Your task to perform on an android device: allow notifications from all sites in the chrome app Image 0: 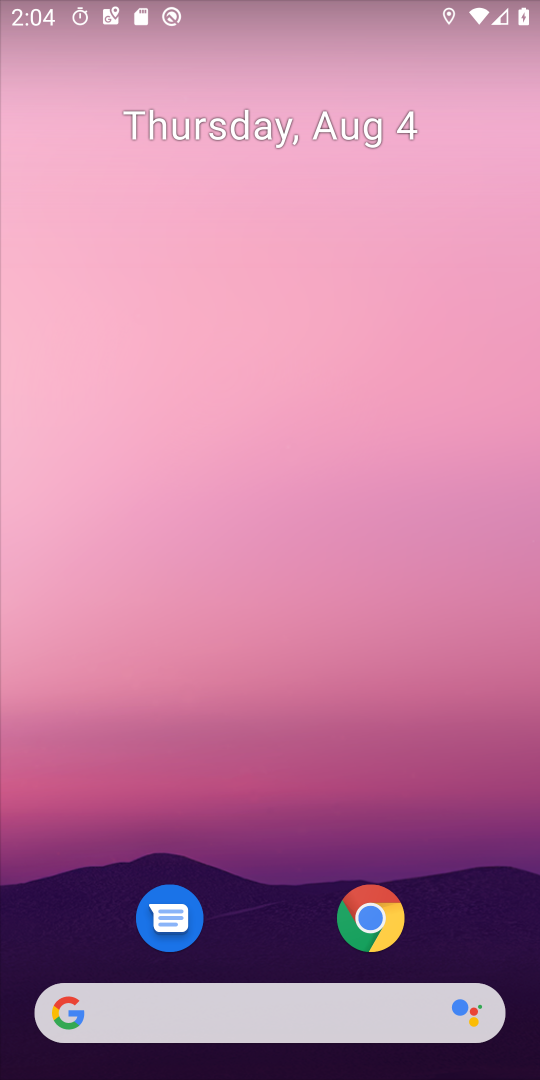
Step 0: click (339, 900)
Your task to perform on an android device: allow notifications from all sites in the chrome app Image 1: 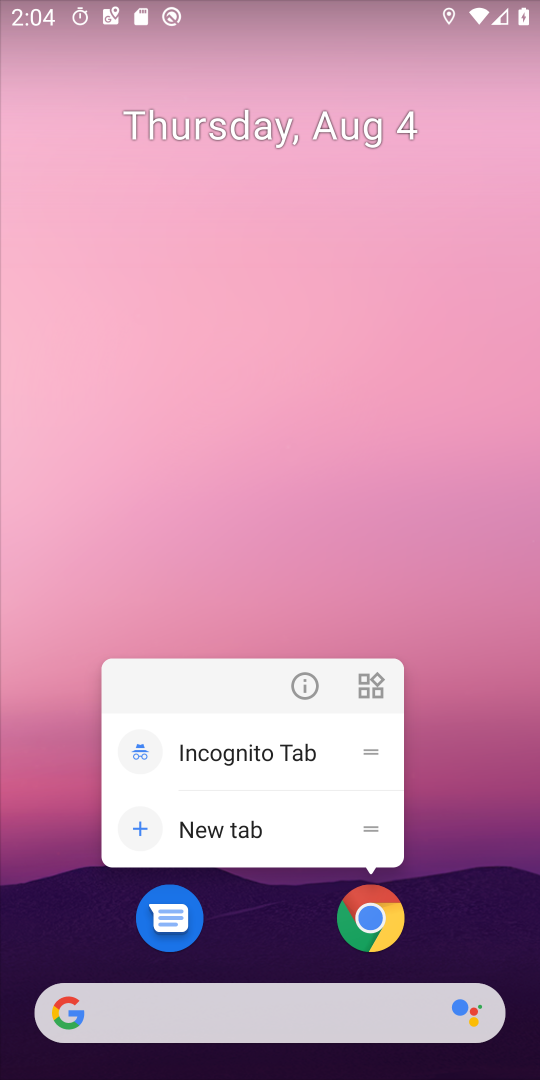
Step 1: click (344, 901)
Your task to perform on an android device: allow notifications from all sites in the chrome app Image 2: 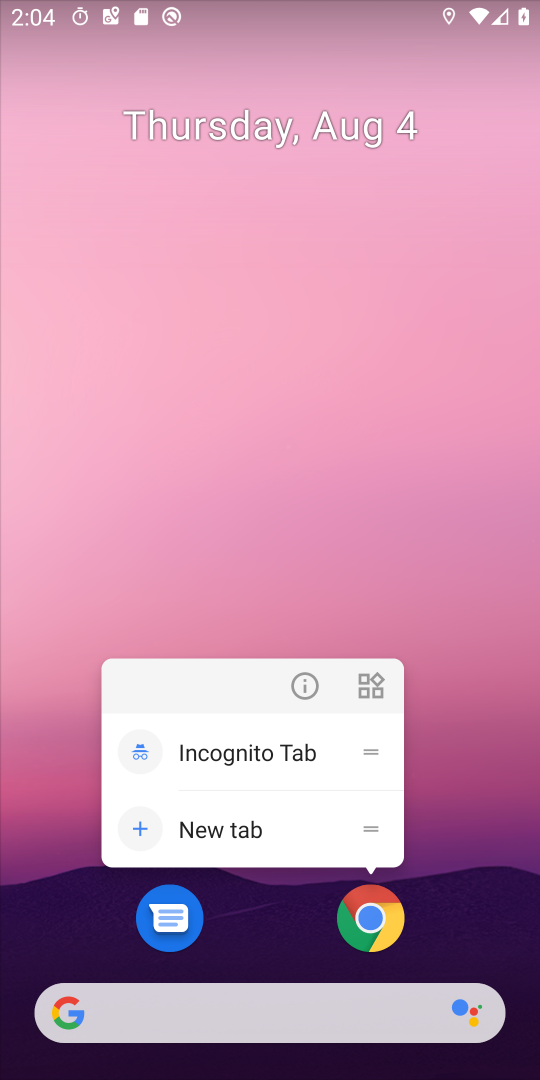
Step 2: click (378, 930)
Your task to perform on an android device: allow notifications from all sites in the chrome app Image 3: 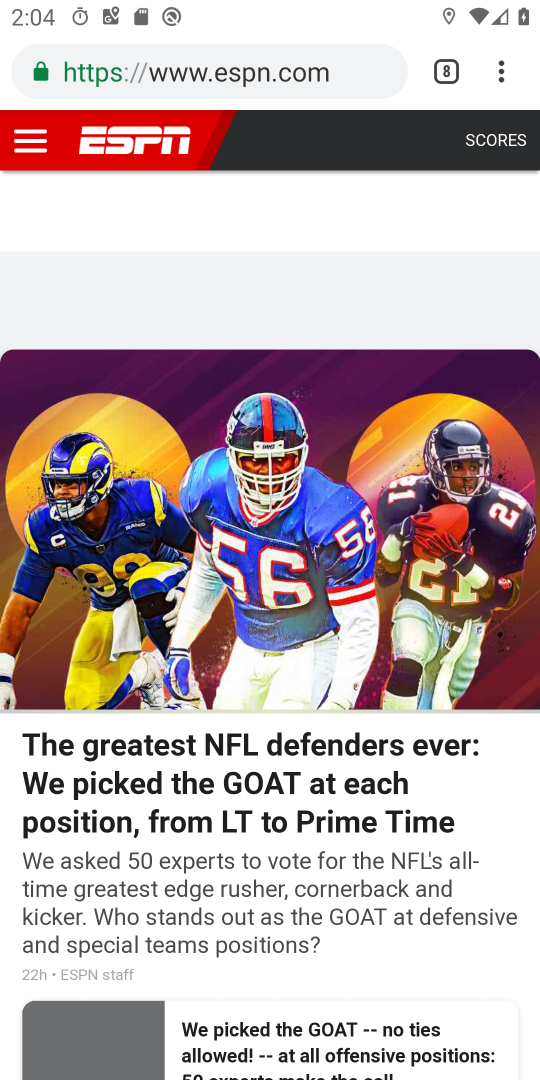
Step 3: click (498, 78)
Your task to perform on an android device: allow notifications from all sites in the chrome app Image 4: 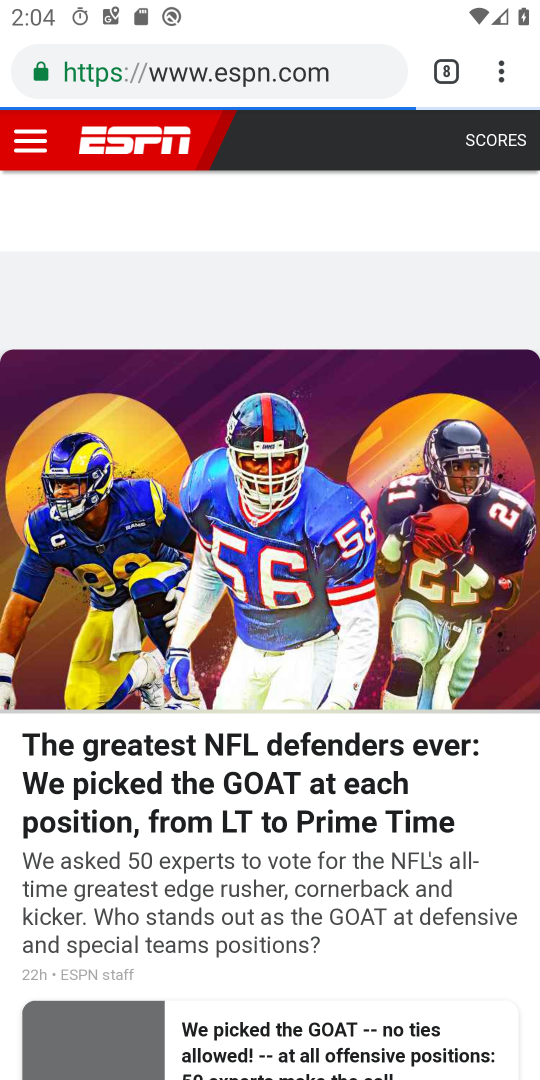
Step 4: drag from (498, 78) to (287, 842)
Your task to perform on an android device: allow notifications from all sites in the chrome app Image 5: 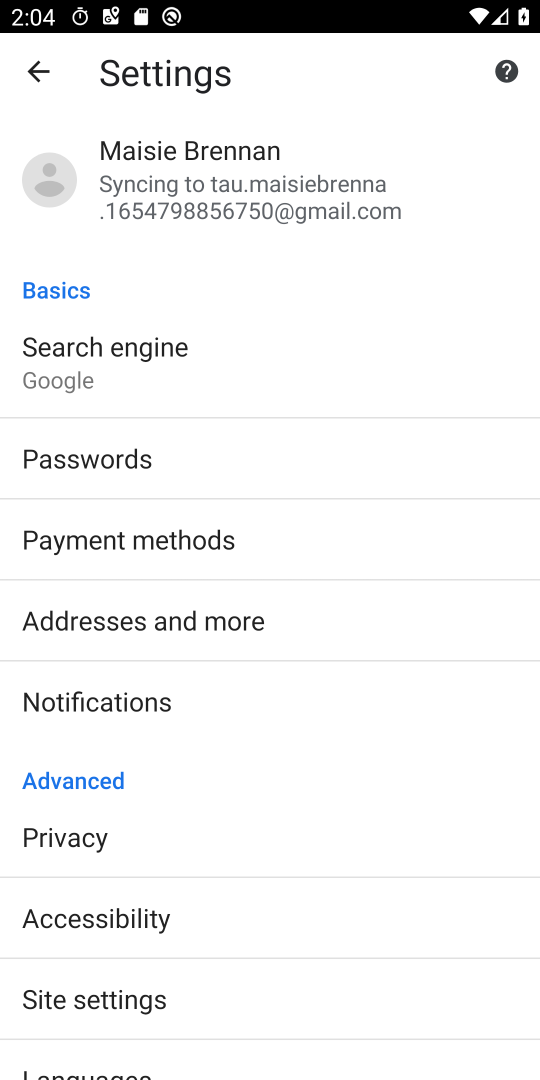
Step 5: click (174, 978)
Your task to perform on an android device: allow notifications from all sites in the chrome app Image 6: 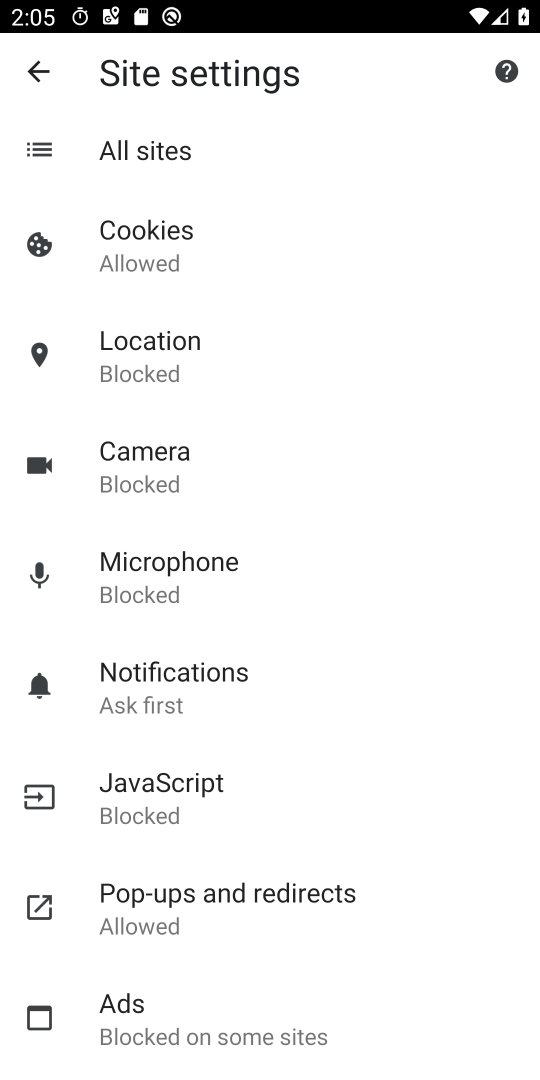
Step 6: click (171, 161)
Your task to perform on an android device: allow notifications from all sites in the chrome app Image 7: 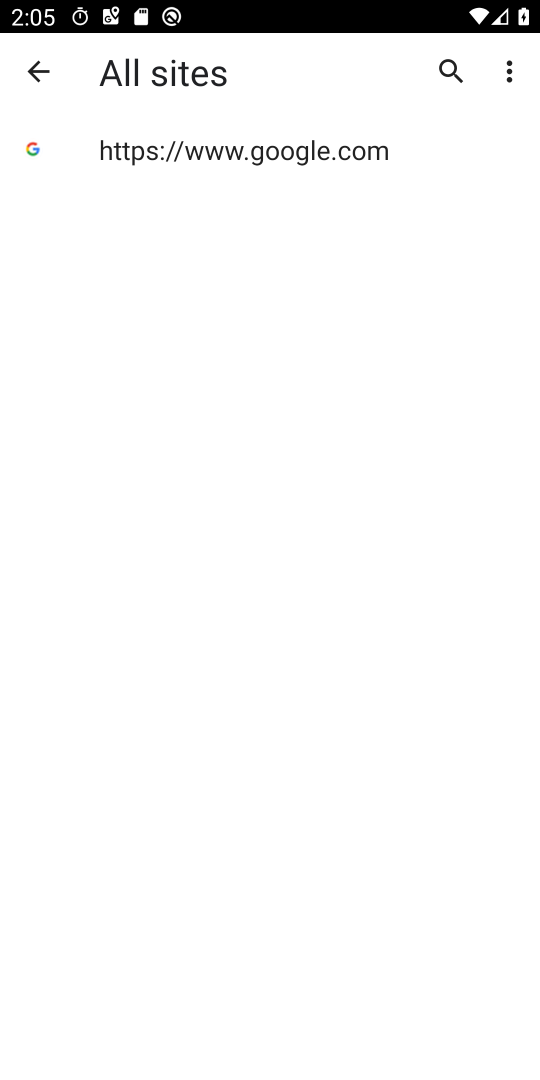
Step 7: click (269, 159)
Your task to perform on an android device: allow notifications from all sites in the chrome app Image 8: 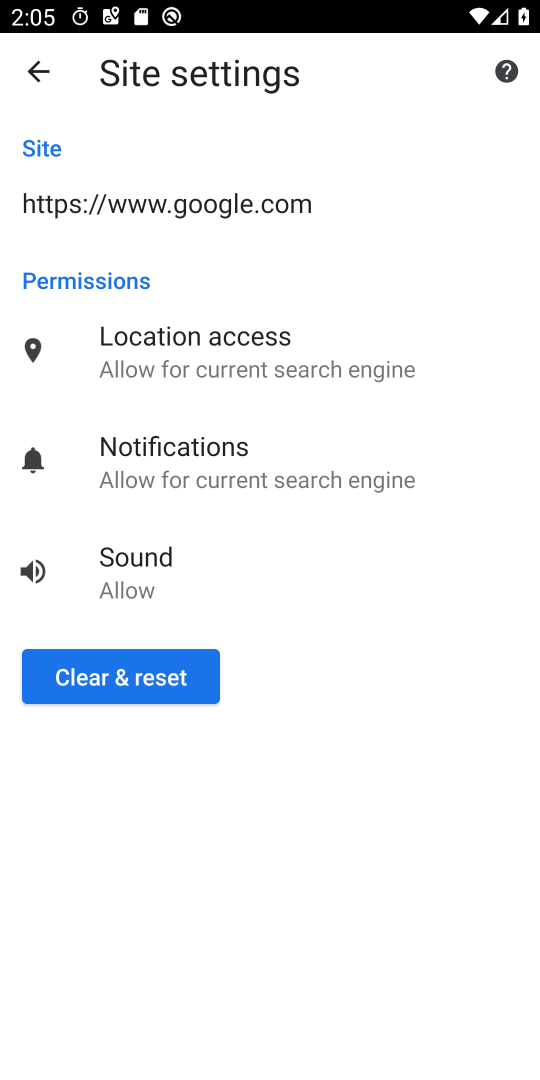
Step 8: click (308, 449)
Your task to perform on an android device: allow notifications from all sites in the chrome app Image 9: 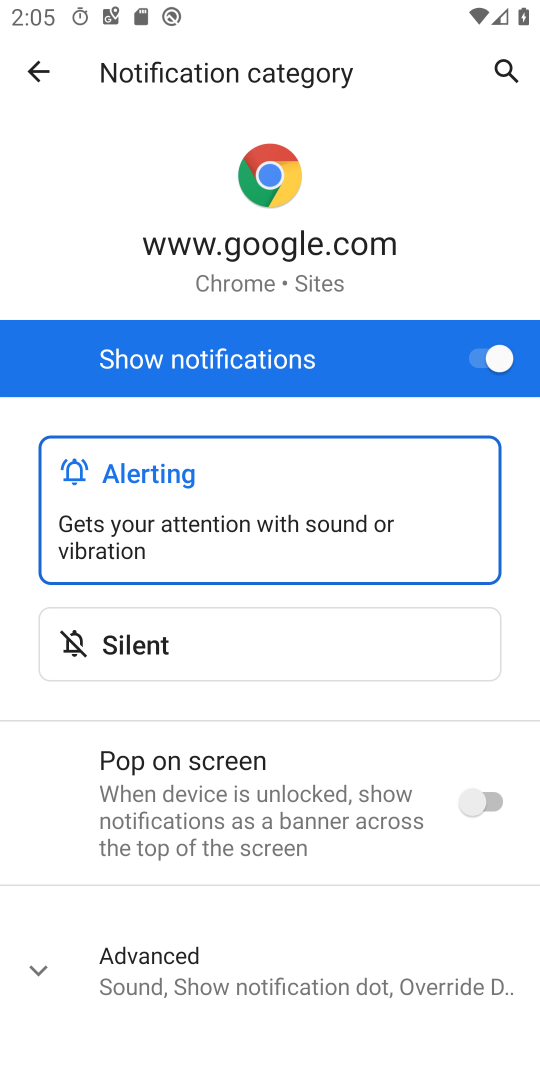
Step 9: task complete